Your task to perform on an android device: Open eBay Image 0: 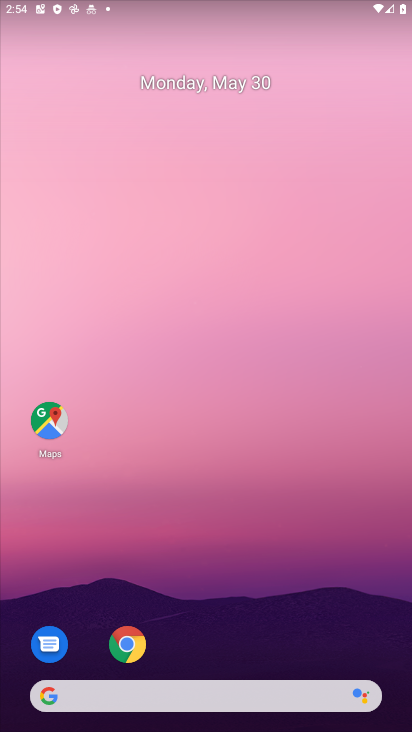
Step 0: click (232, 693)
Your task to perform on an android device: Open eBay Image 1: 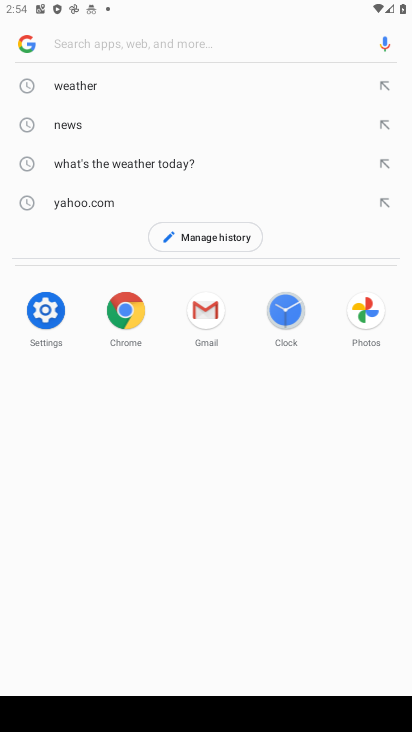
Step 1: type "ebay.com"
Your task to perform on an android device: Open eBay Image 2: 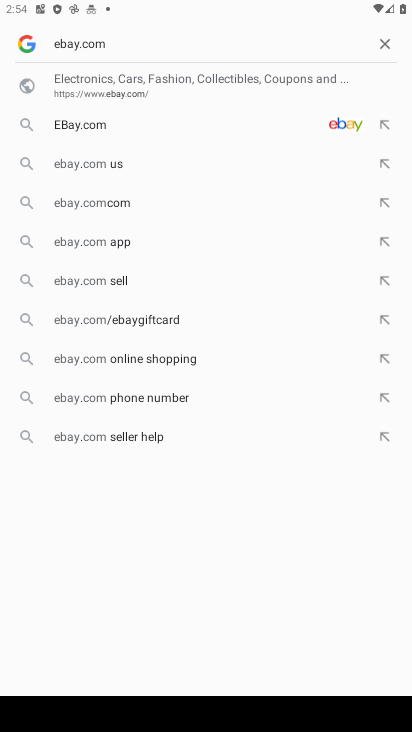
Step 2: click (292, 85)
Your task to perform on an android device: Open eBay Image 3: 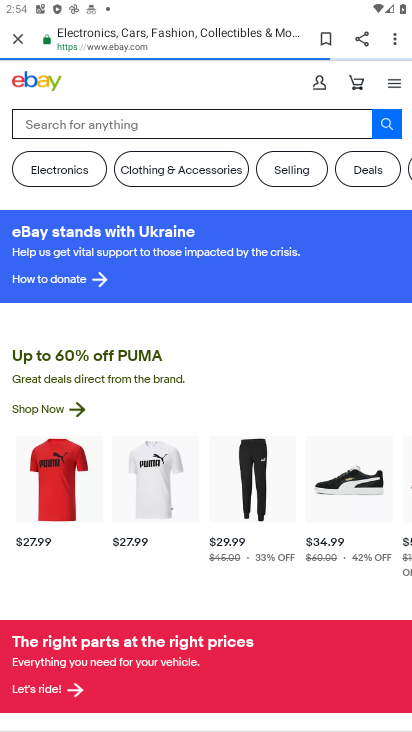
Step 3: task complete